Your task to perform on an android device: change the upload size in google photos Image 0: 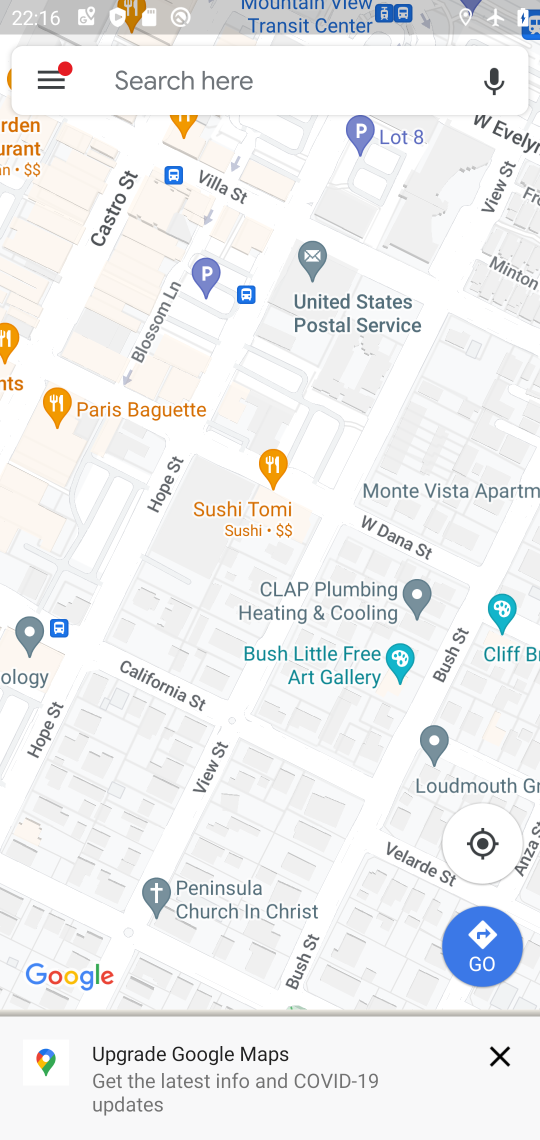
Step 0: press home button
Your task to perform on an android device: change the upload size in google photos Image 1: 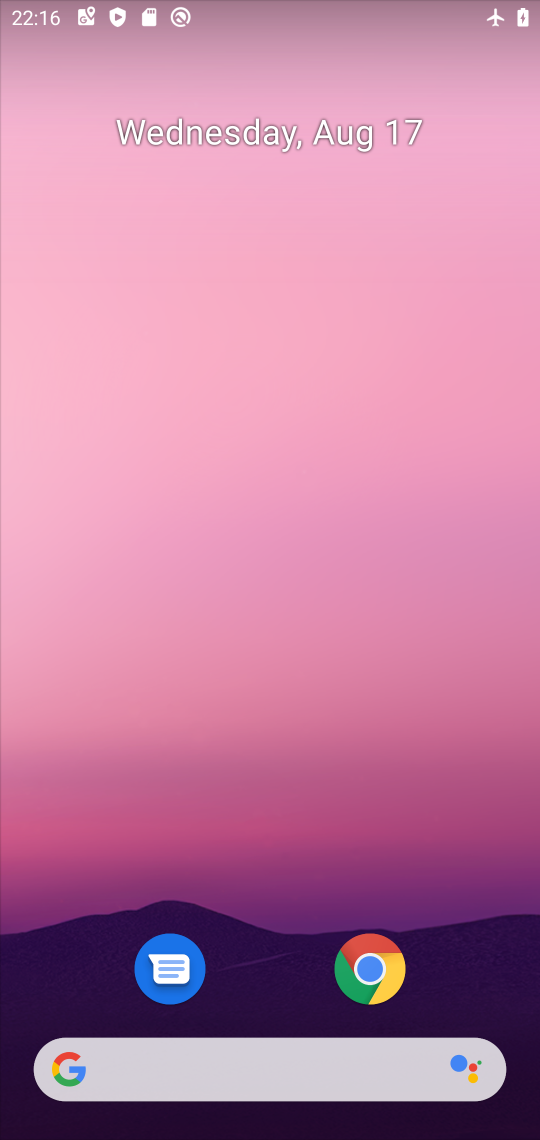
Step 1: drag from (262, 949) to (217, 239)
Your task to perform on an android device: change the upload size in google photos Image 2: 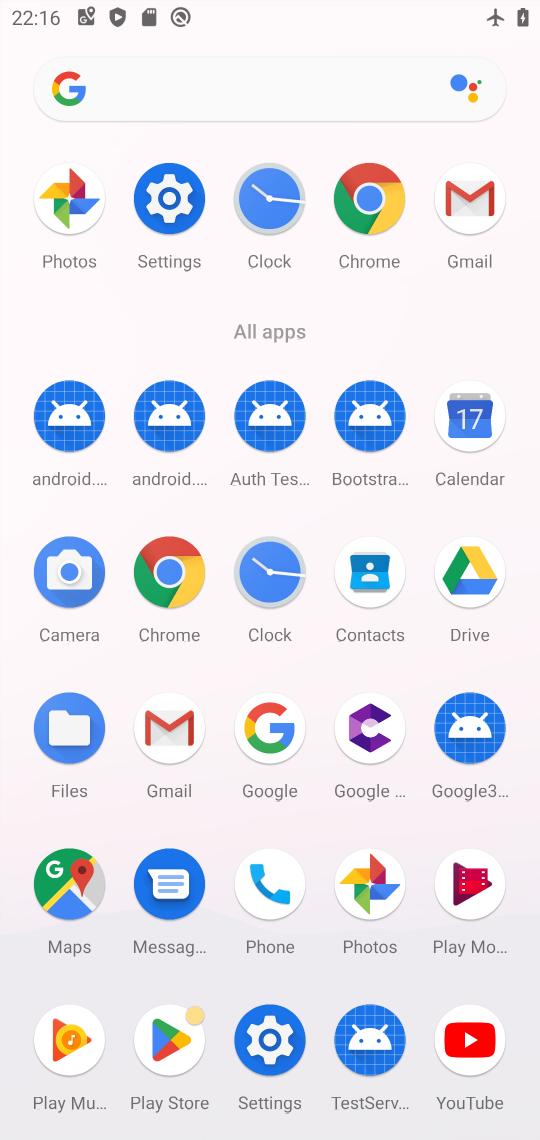
Step 2: click (73, 204)
Your task to perform on an android device: change the upload size in google photos Image 3: 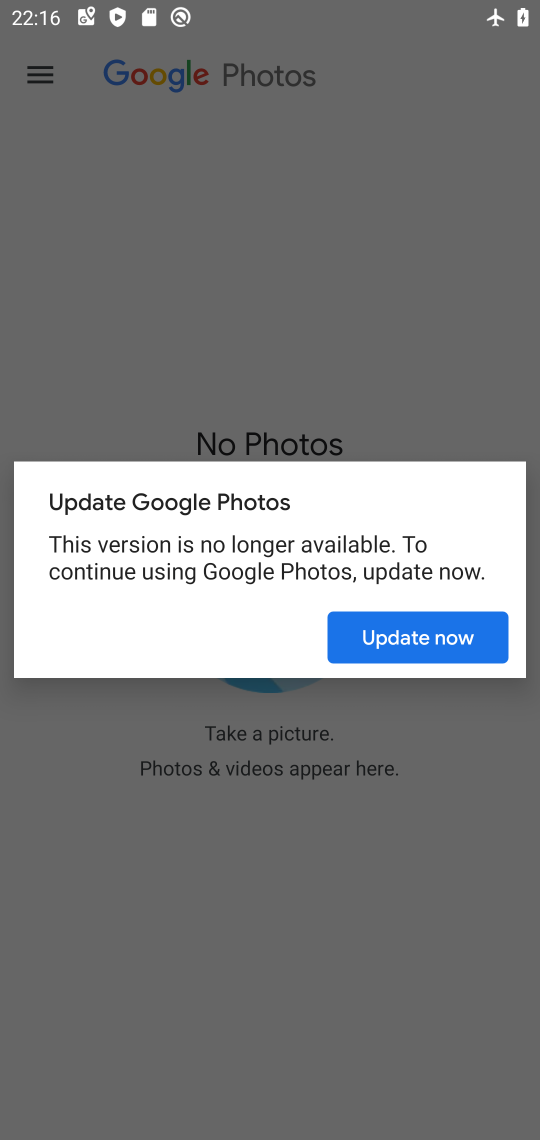
Step 3: click (379, 632)
Your task to perform on an android device: change the upload size in google photos Image 4: 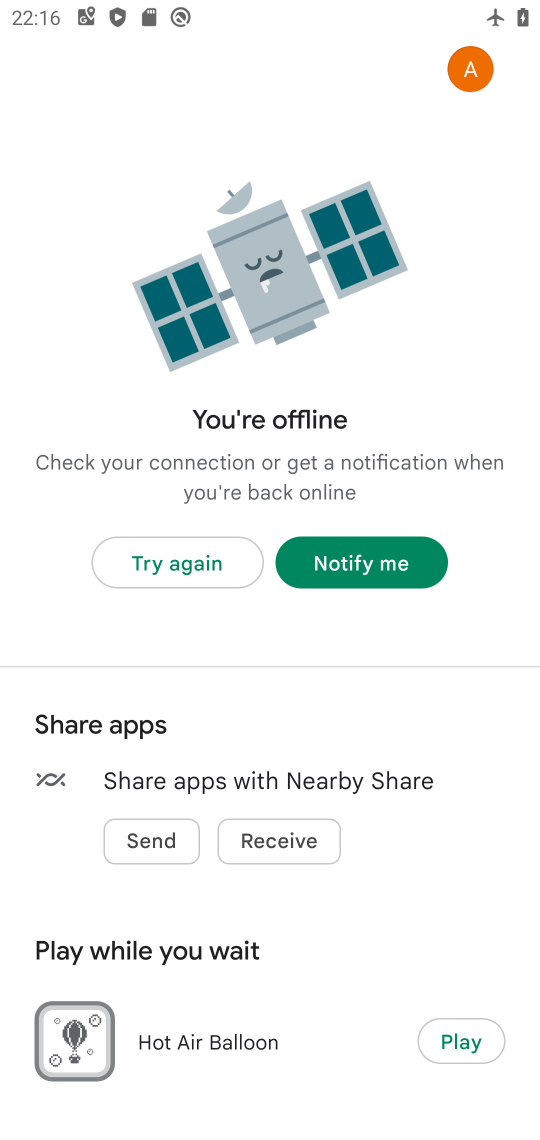
Step 4: click (191, 552)
Your task to perform on an android device: change the upload size in google photos Image 5: 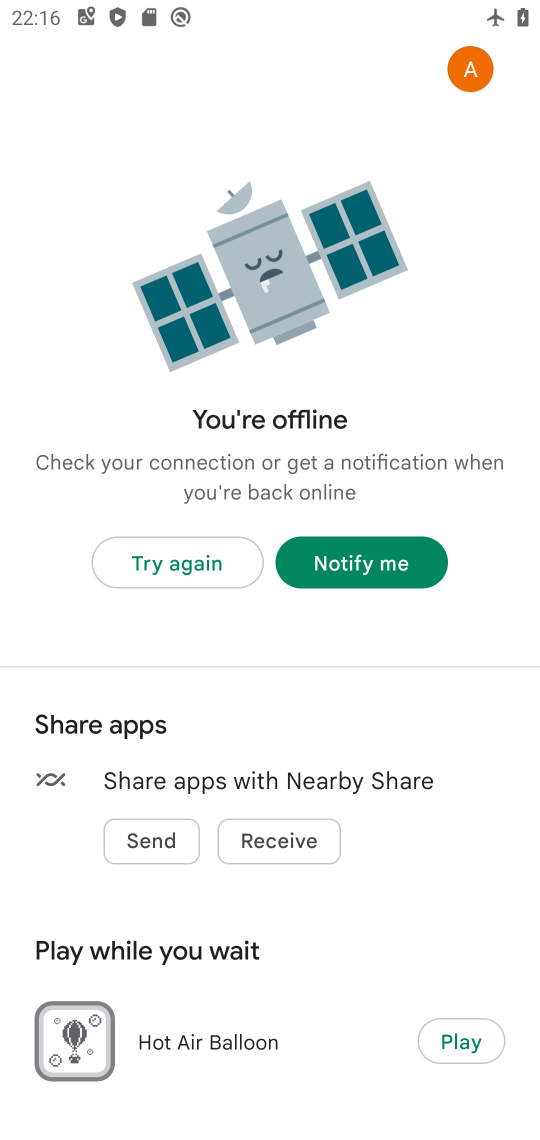
Step 5: click (191, 552)
Your task to perform on an android device: change the upload size in google photos Image 6: 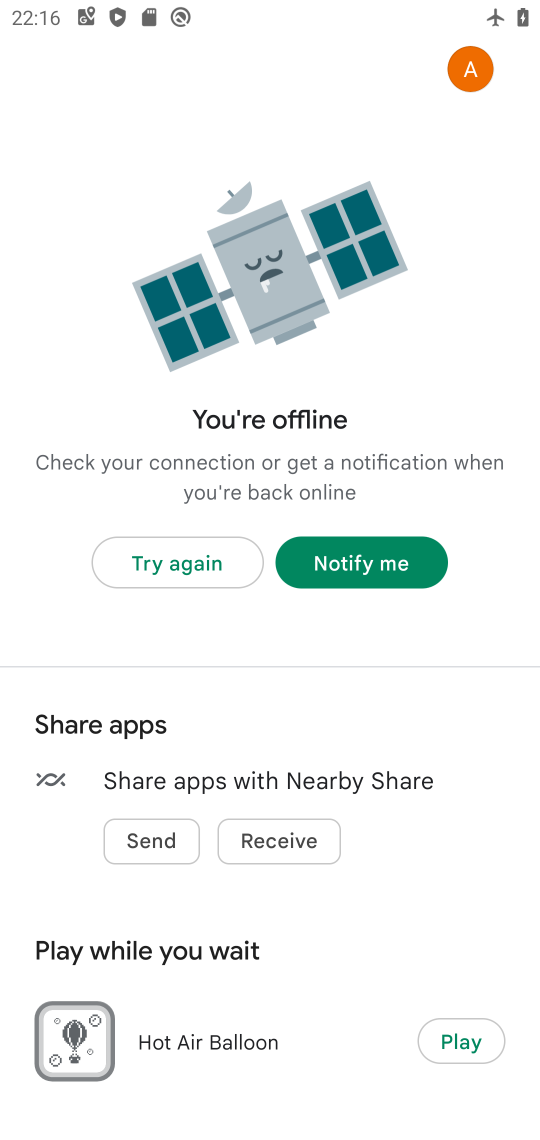
Step 6: click (191, 552)
Your task to perform on an android device: change the upload size in google photos Image 7: 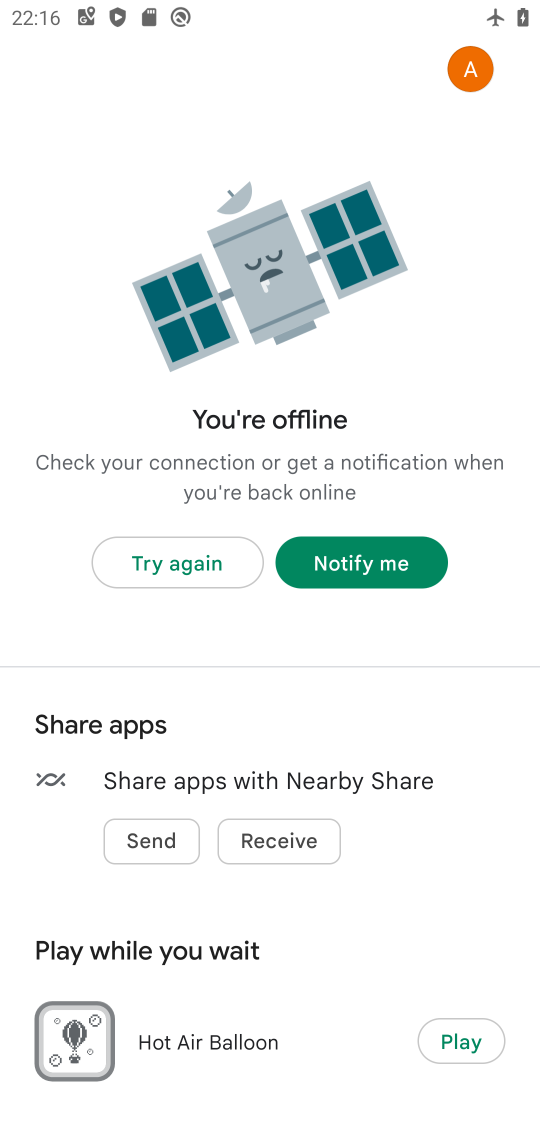
Step 7: click (191, 552)
Your task to perform on an android device: change the upload size in google photos Image 8: 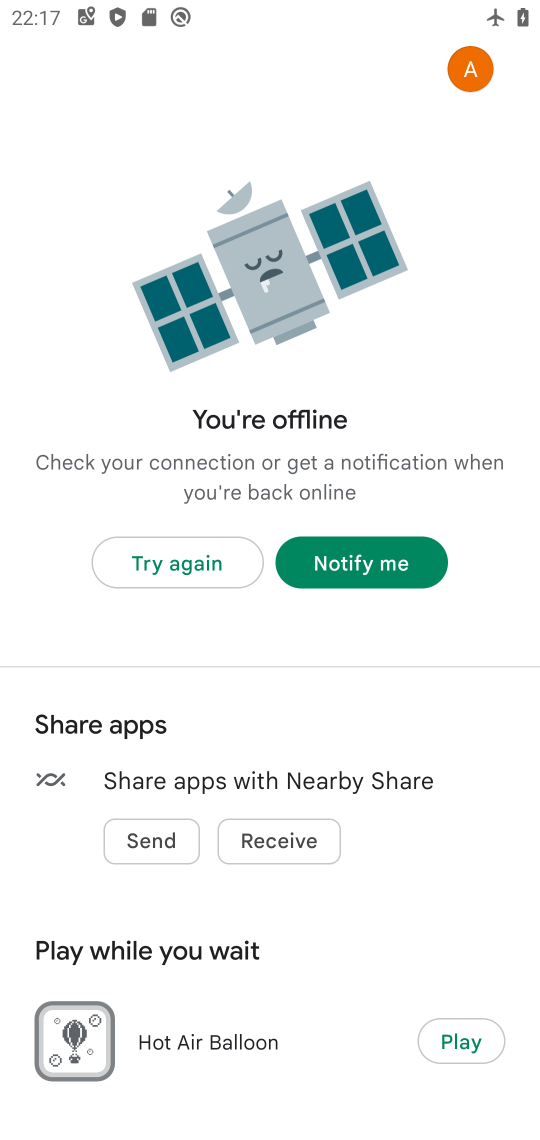
Step 8: click (191, 552)
Your task to perform on an android device: change the upload size in google photos Image 9: 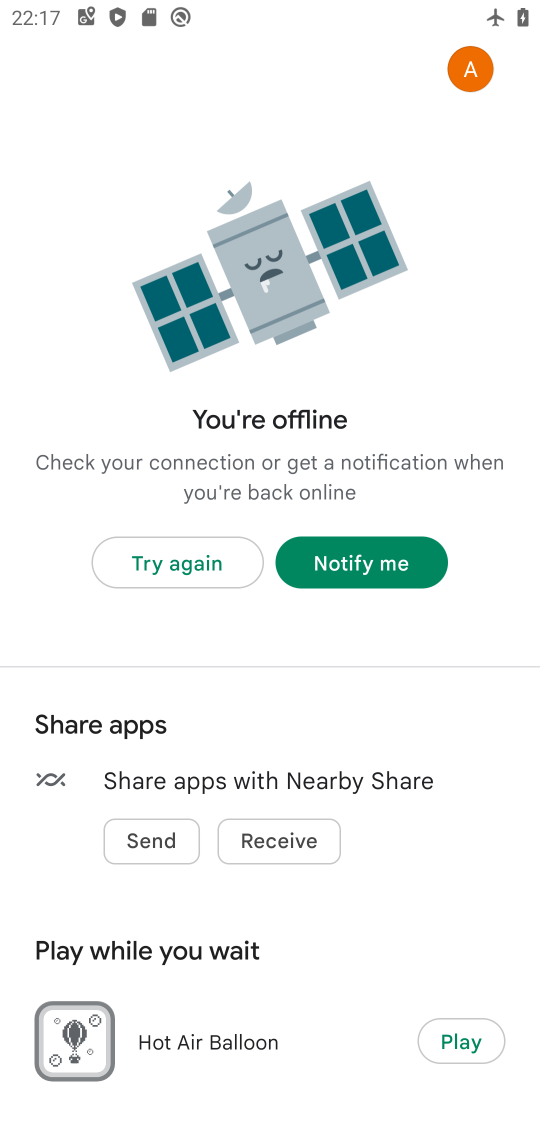
Step 9: click (191, 552)
Your task to perform on an android device: change the upload size in google photos Image 10: 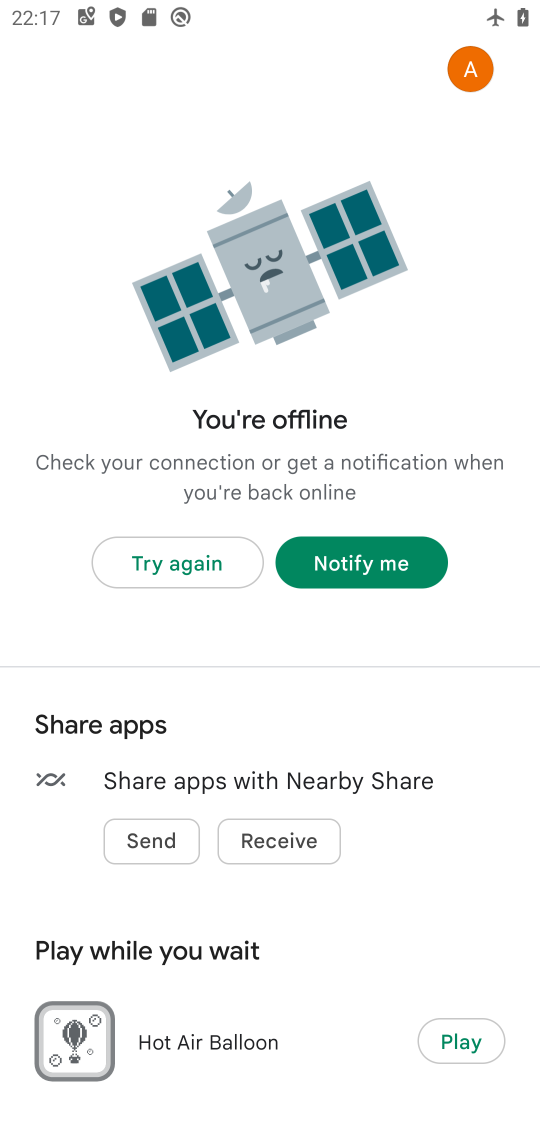
Step 10: click (155, 558)
Your task to perform on an android device: change the upload size in google photos Image 11: 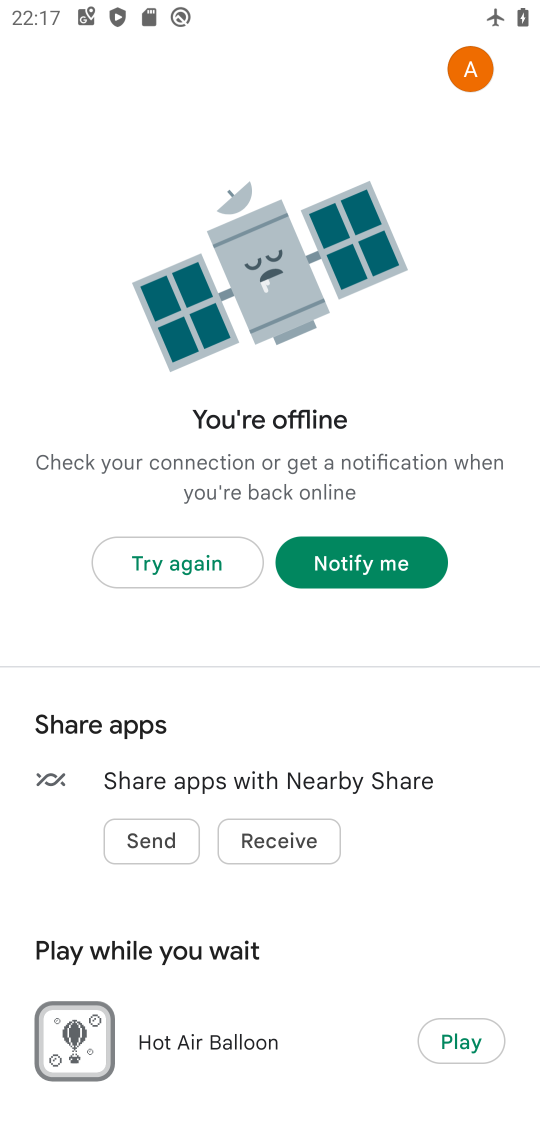
Step 11: click (143, 555)
Your task to perform on an android device: change the upload size in google photos Image 12: 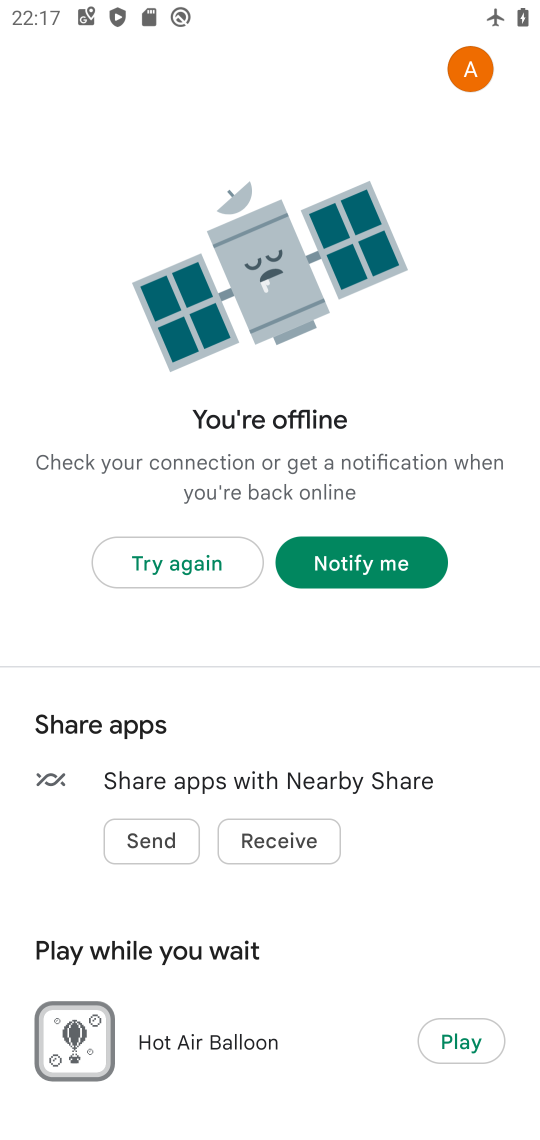
Step 12: click (120, 551)
Your task to perform on an android device: change the upload size in google photos Image 13: 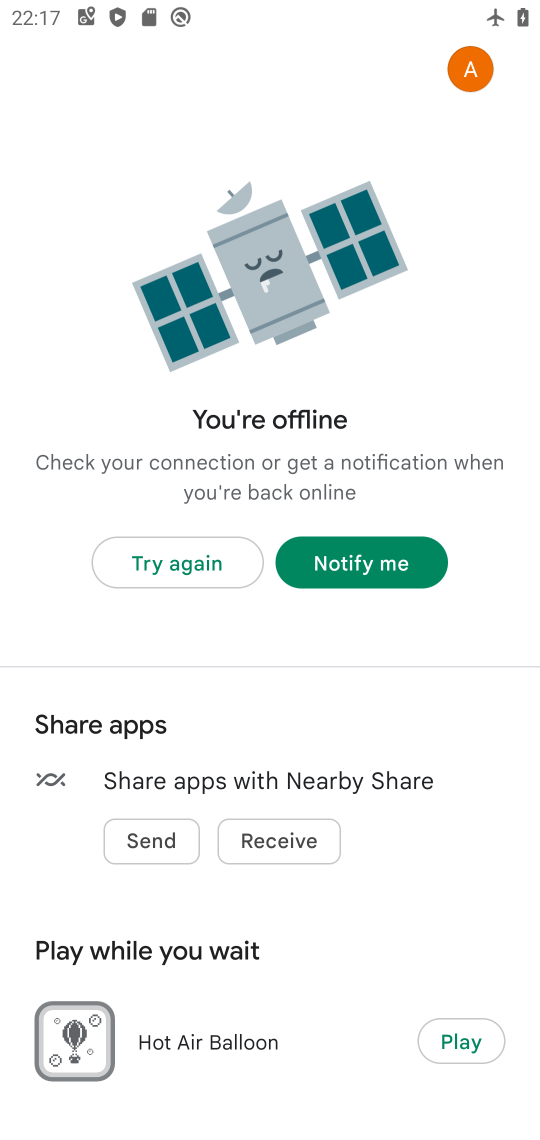
Step 13: click (120, 551)
Your task to perform on an android device: change the upload size in google photos Image 14: 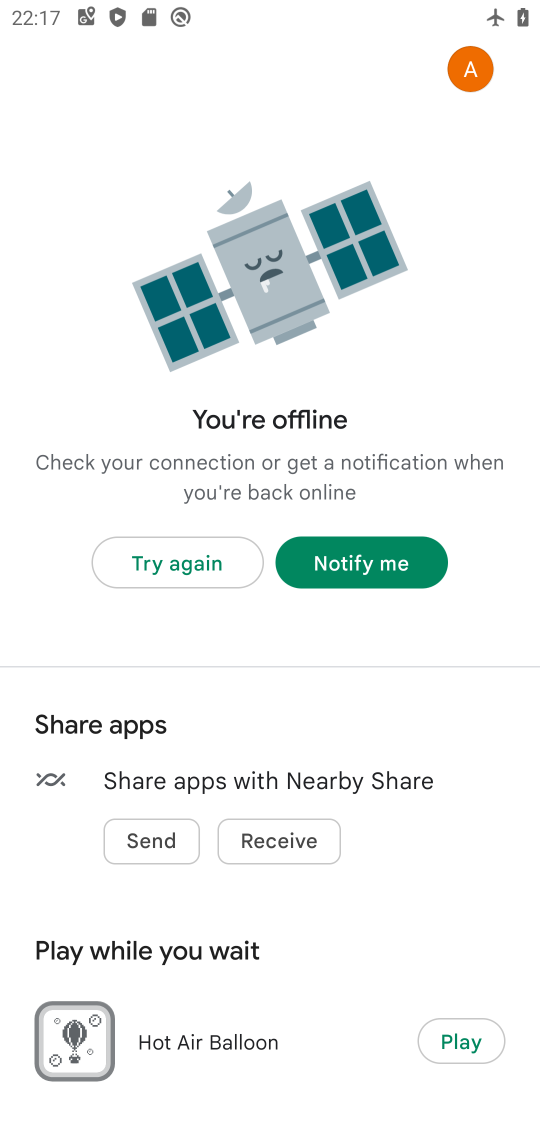
Step 14: click (317, 572)
Your task to perform on an android device: change the upload size in google photos Image 15: 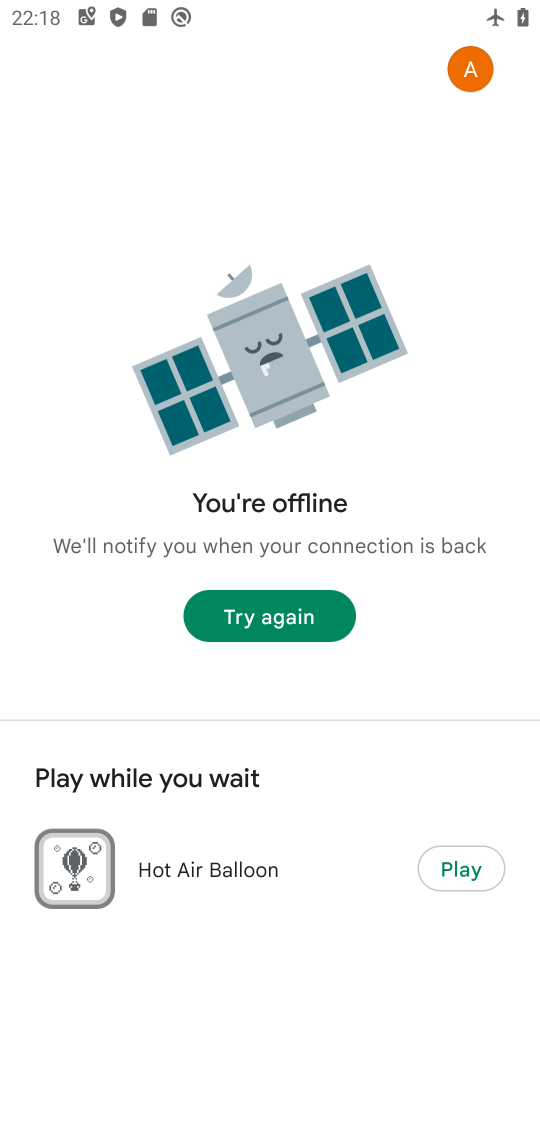
Step 15: task complete